Your task to perform on an android device: change notifications settings Image 0: 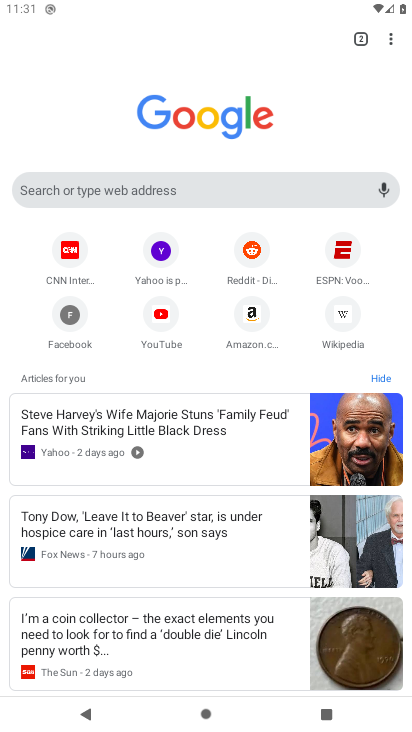
Step 0: press home button
Your task to perform on an android device: change notifications settings Image 1: 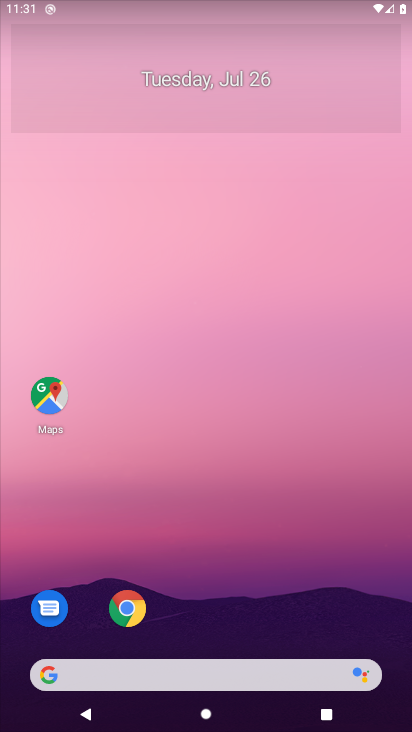
Step 1: drag from (303, 596) to (307, 164)
Your task to perform on an android device: change notifications settings Image 2: 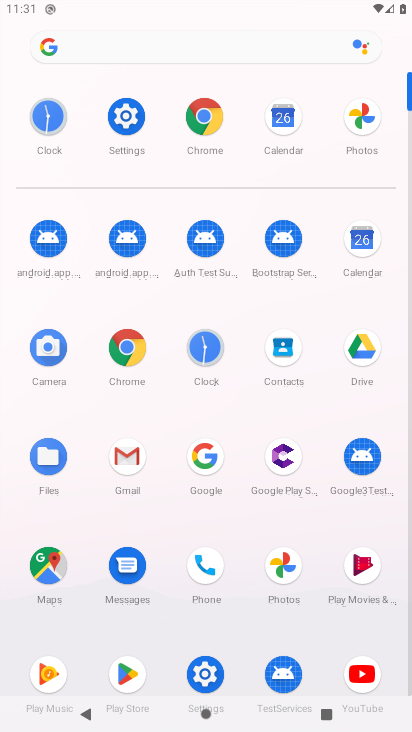
Step 2: click (121, 117)
Your task to perform on an android device: change notifications settings Image 3: 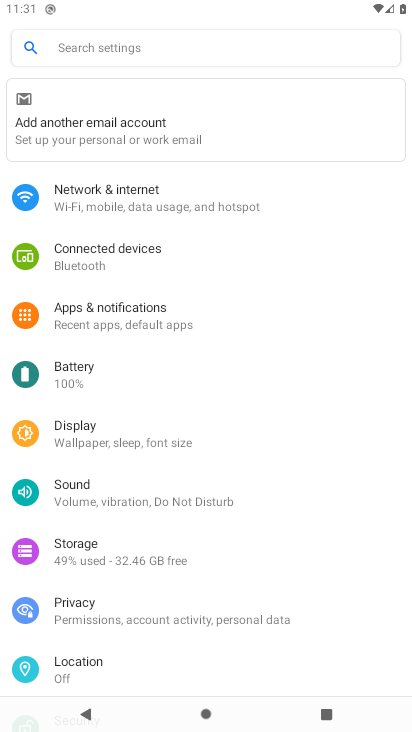
Step 3: click (130, 293)
Your task to perform on an android device: change notifications settings Image 4: 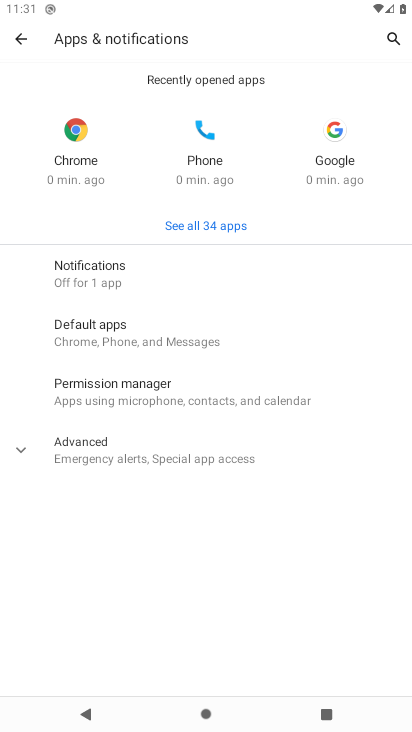
Step 4: click (168, 266)
Your task to perform on an android device: change notifications settings Image 5: 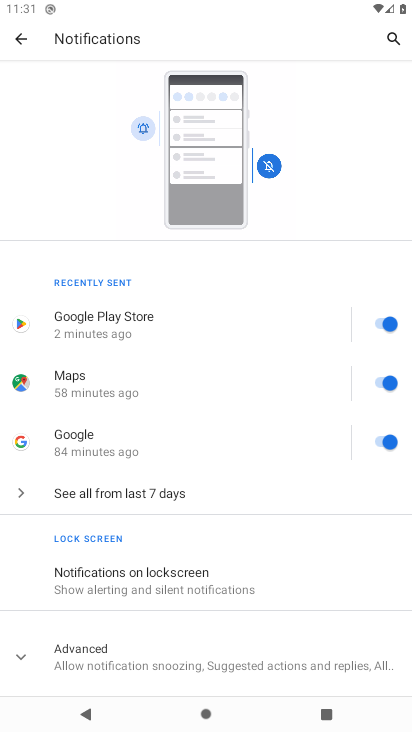
Step 5: click (143, 126)
Your task to perform on an android device: change notifications settings Image 6: 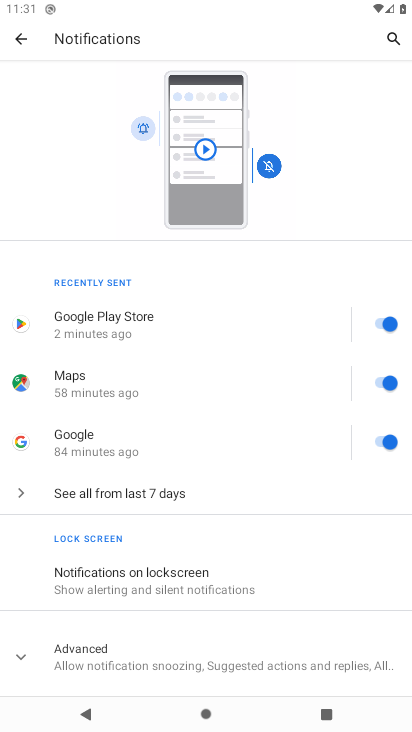
Step 6: click (270, 163)
Your task to perform on an android device: change notifications settings Image 7: 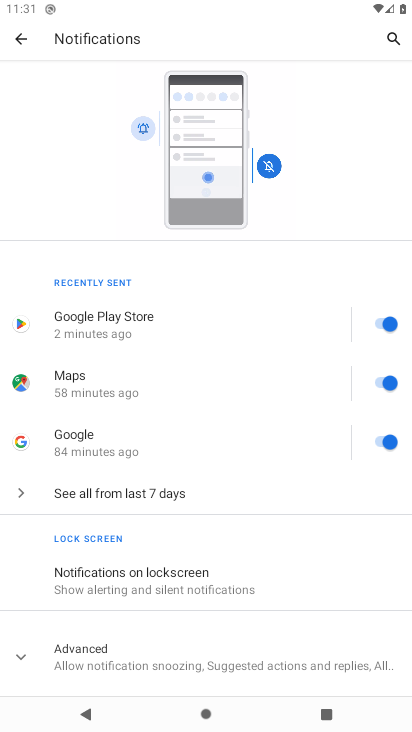
Step 7: click (145, 123)
Your task to perform on an android device: change notifications settings Image 8: 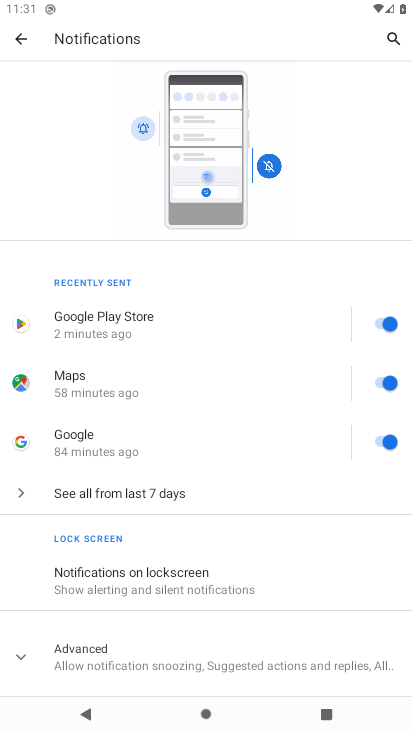
Step 8: click (145, 123)
Your task to perform on an android device: change notifications settings Image 9: 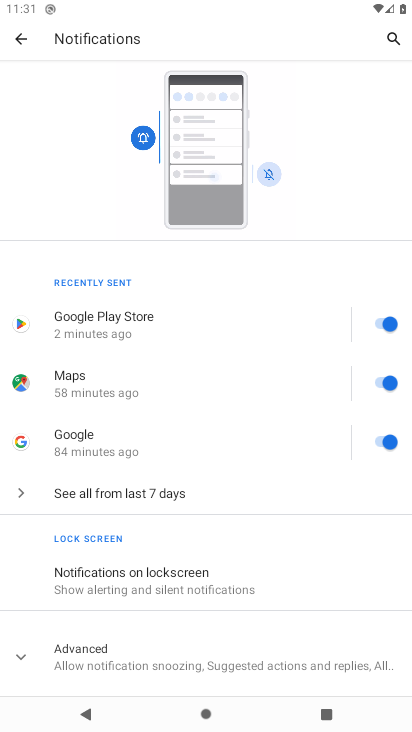
Step 9: task complete